Your task to perform on an android device: turn off wifi Image 0: 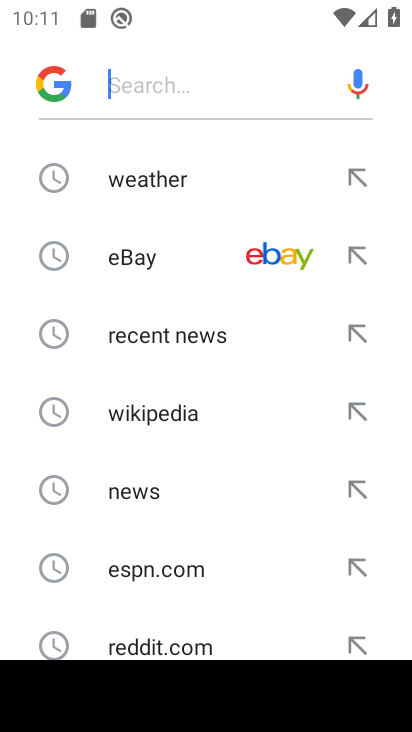
Step 0: press back button
Your task to perform on an android device: turn off wifi Image 1: 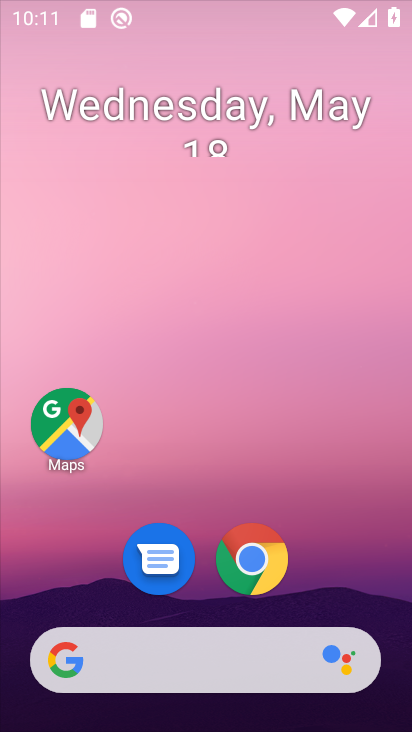
Step 1: press home button
Your task to perform on an android device: turn off wifi Image 2: 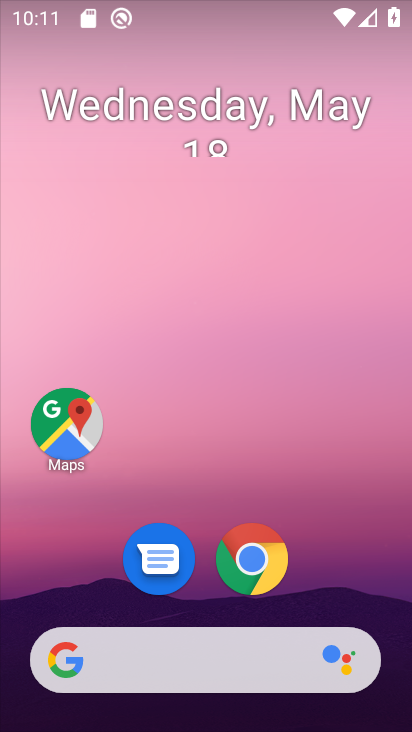
Step 2: drag from (195, 583) to (256, 118)
Your task to perform on an android device: turn off wifi Image 3: 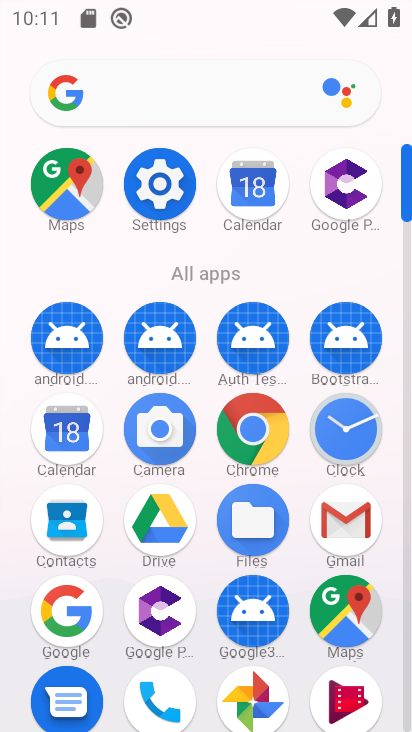
Step 3: click (168, 191)
Your task to perform on an android device: turn off wifi Image 4: 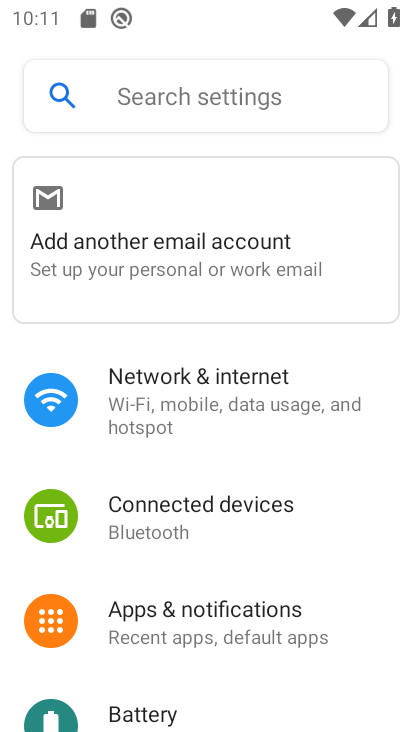
Step 4: click (154, 427)
Your task to perform on an android device: turn off wifi Image 5: 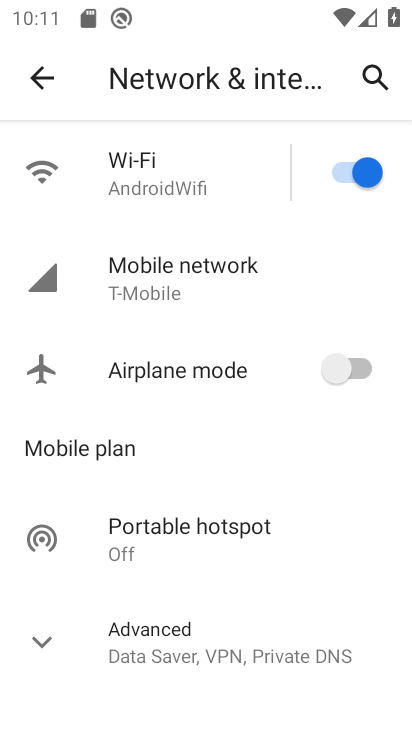
Step 5: click (178, 176)
Your task to perform on an android device: turn off wifi Image 6: 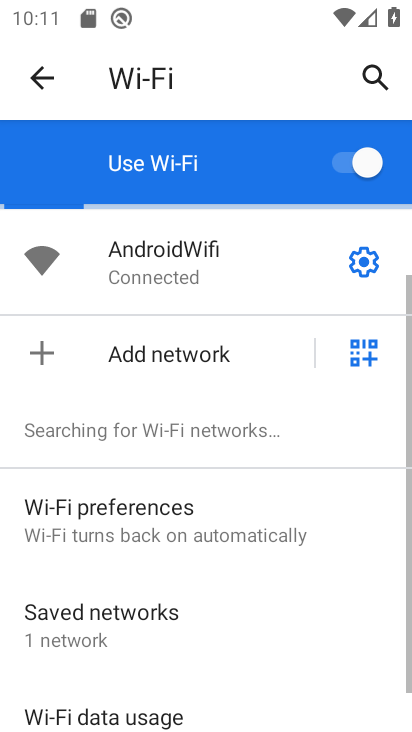
Step 6: click (320, 159)
Your task to perform on an android device: turn off wifi Image 7: 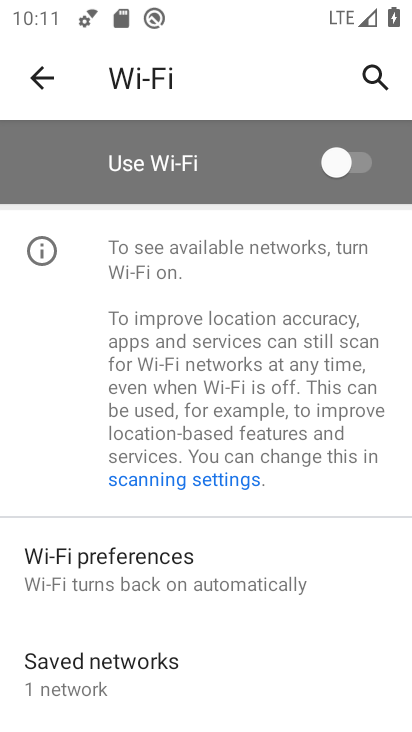
Step 7: task complete